Your task to perform on an android device: Open battery settings Image 0: 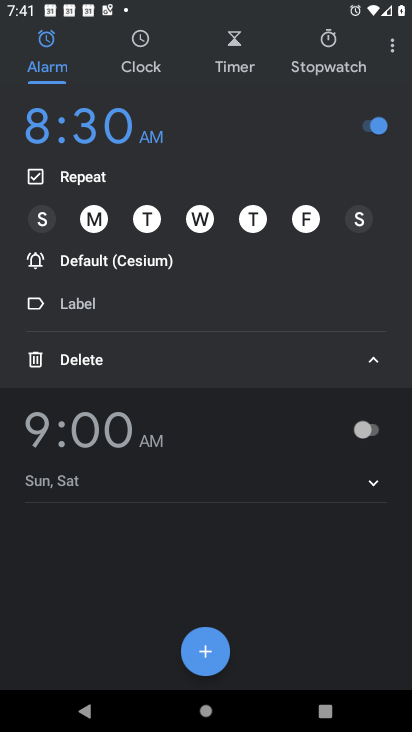
Step 0: press home button
Your task to perform on an android device: Open battery settings Image 1: 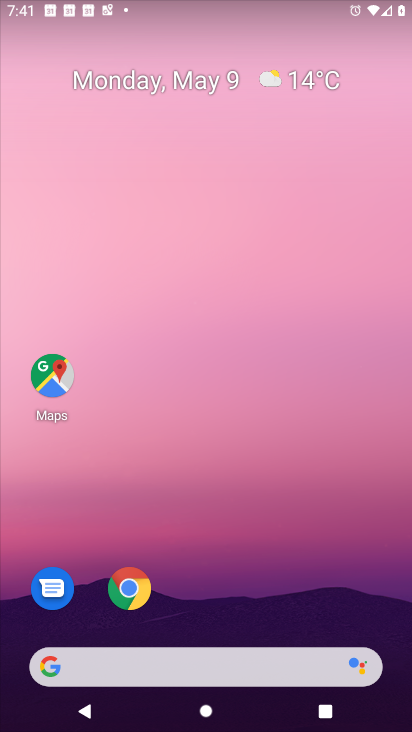
Step 1: drag from (327, 615) to (324, 23)
Your task to perform on an android device: Open battery settings Image 2: 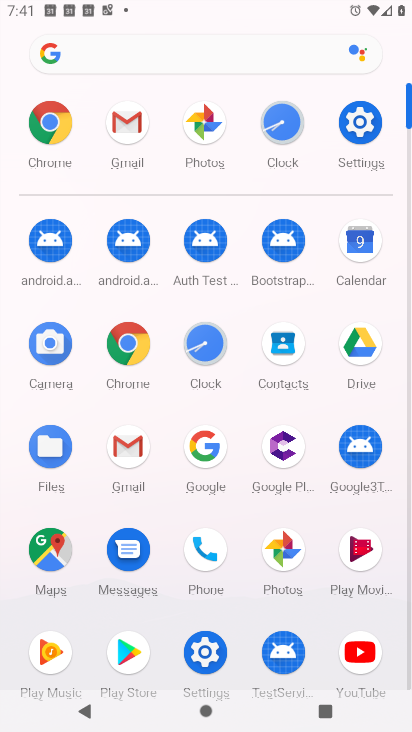
Step 2: click (204, 654)
Your task to perform on an android device: Open battery settings Image 3: 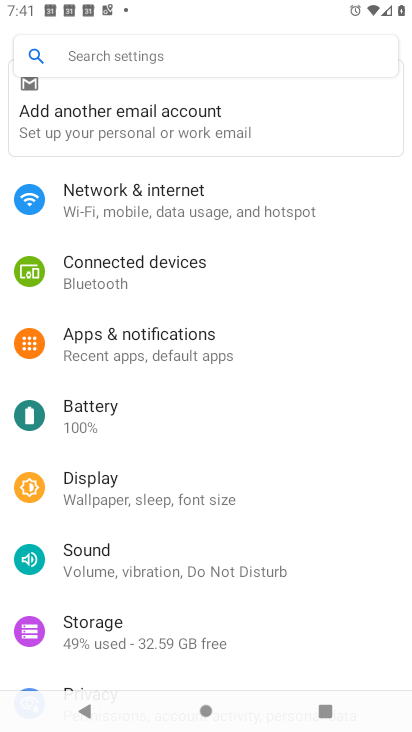
Step 3: click (142, 423)
Your task to perform on an android device: Open battery settings Image 4: 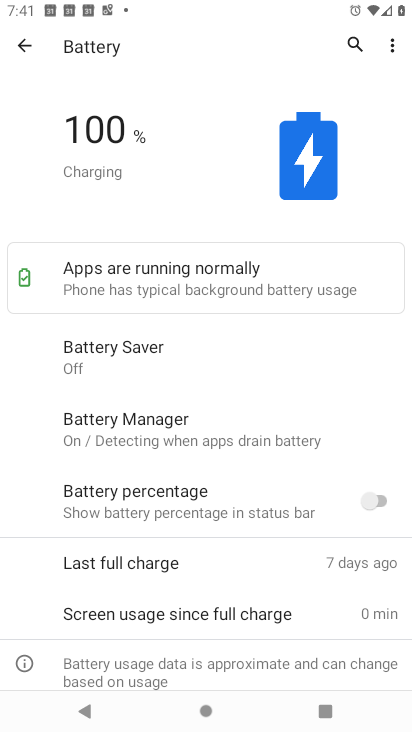
Step 4: task complete